Your task to perform on an android device: Show me recent news Image 0: 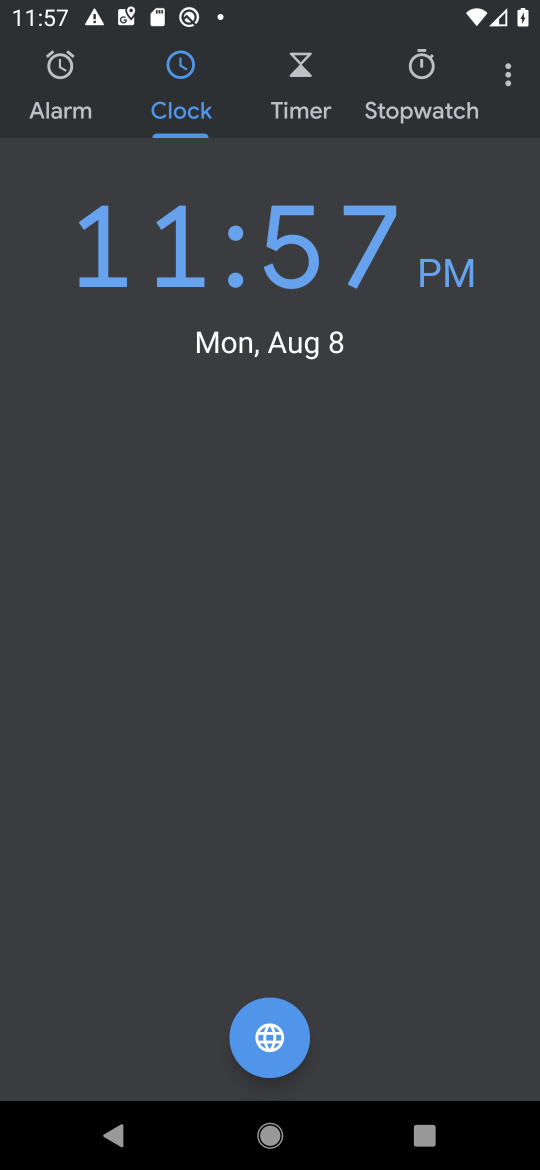
Step 0: drag from (45, 1124) to (248, 67)
Your task to perform on an android device: Show me recent news Image 1: 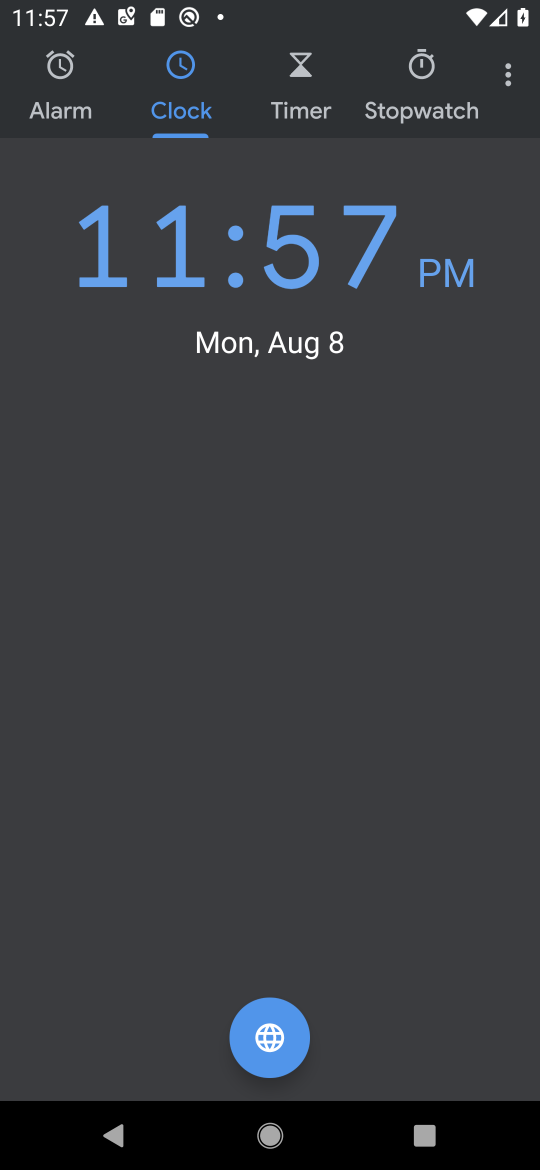
Step 1: task complete